Your task to perform on an android device: Open display settings Image 0: 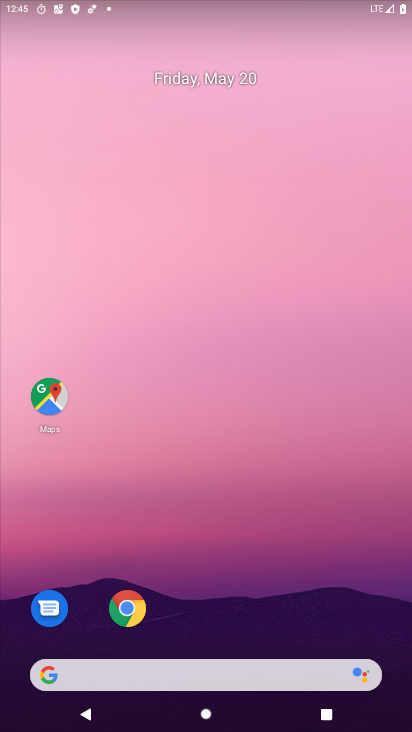
Step 0: drag from (268, 602) to (267, 210)
Your task to perform on an android device: Open display settings Image 1: 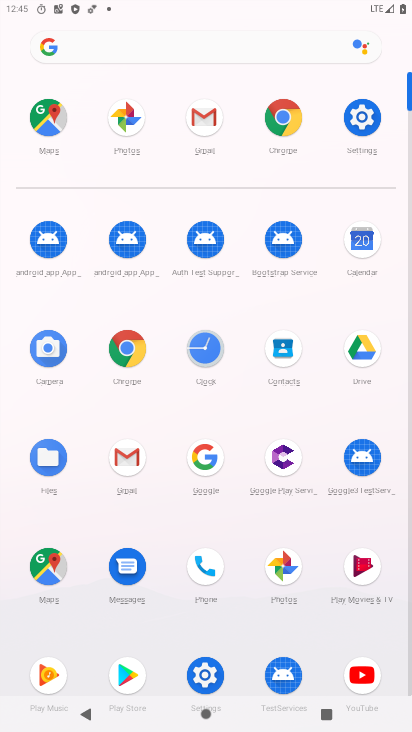
Step 1: click (209, 681)
Your task to perform on an android device: Open display settings Image 2: 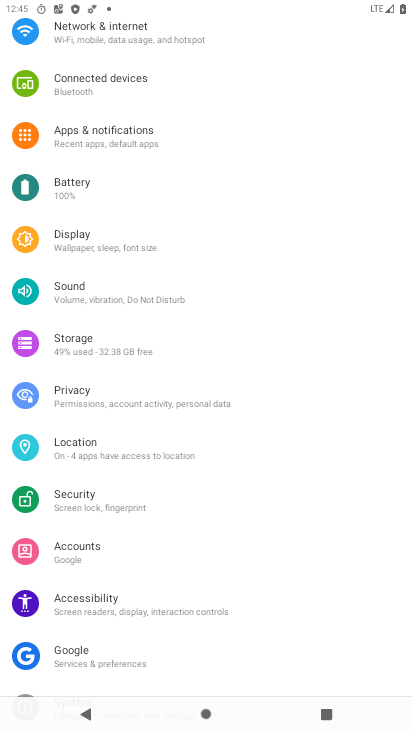
Step 2: click (62, 238)
Your task to perform on an android device: Open display settings Image 3: 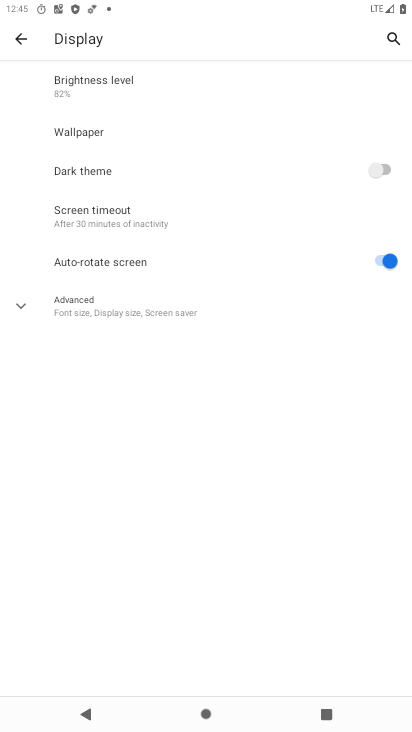
Step 3: task complete